Your task to perform on an android device: set the stopwatch Image 0: 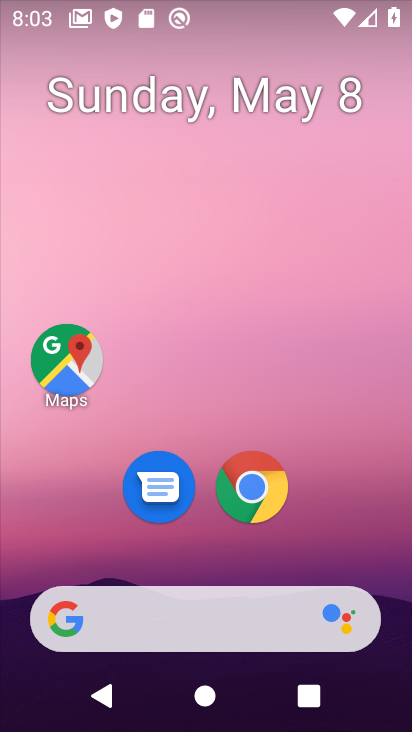
Step 0: drag from (348, 539) to (317, 72)
Your task to perform on an android device: set the stopwatch Image 1: 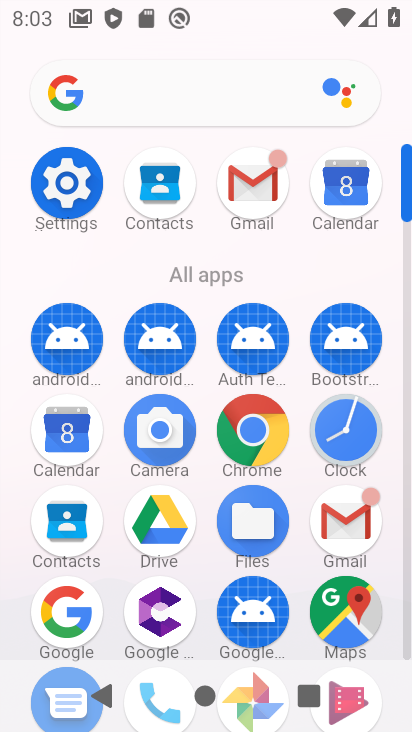
Step 1: click (335, 450)
Your task to perform on an android device: set the stopwatch Image 2: 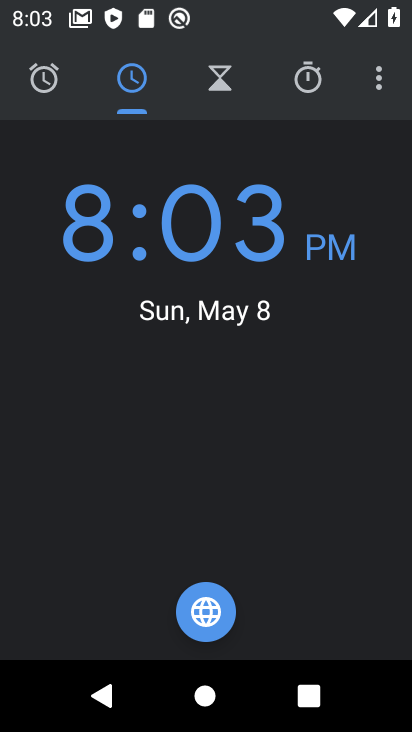
Step 2: click (313, 82)
Your task to perform on an android device: set the stopwatch Image 3: 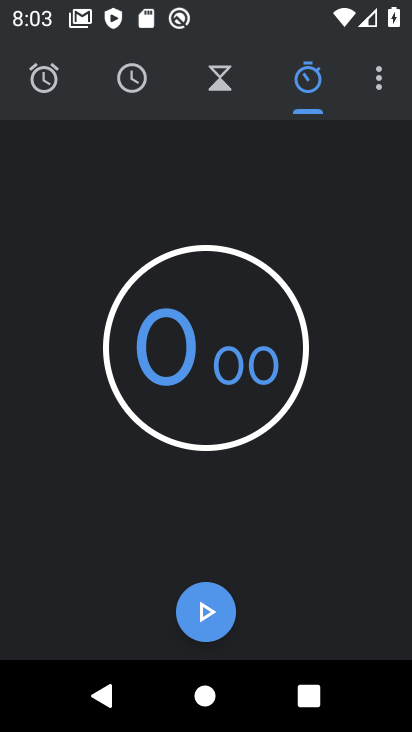
Step 3: task complete